Your task to perform on an android device: clear all cookies in the chrome app Image 0: 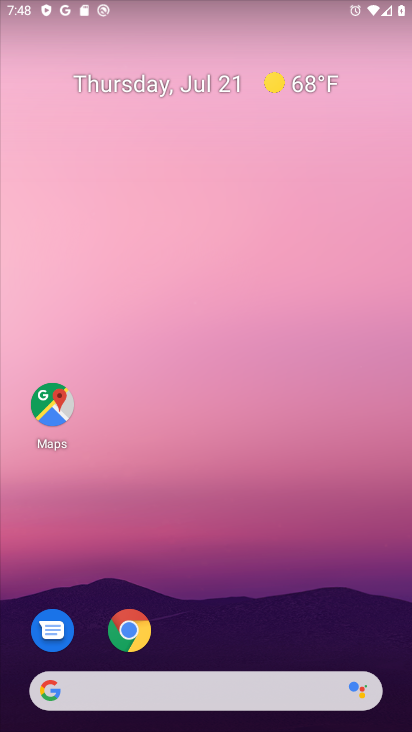
Step 0: drag from (280, 600) to (227, 0)
Your task to perform on an android device: clear all cookies in the chrome app Image 1: 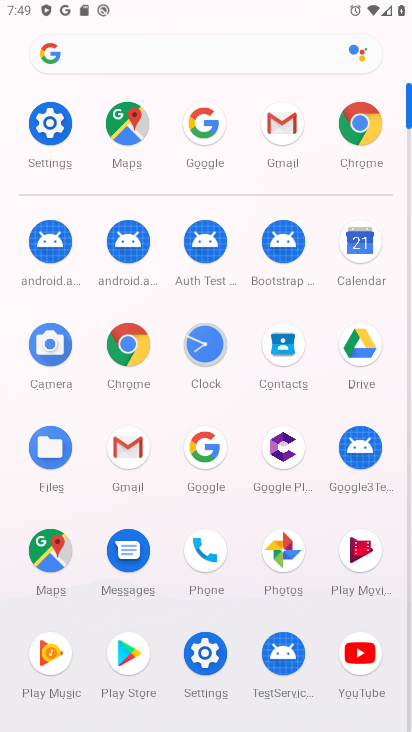
Step 1: click (362, 137)
Your task to perform on an android device: clear all cookies in the chrome app Image 2: 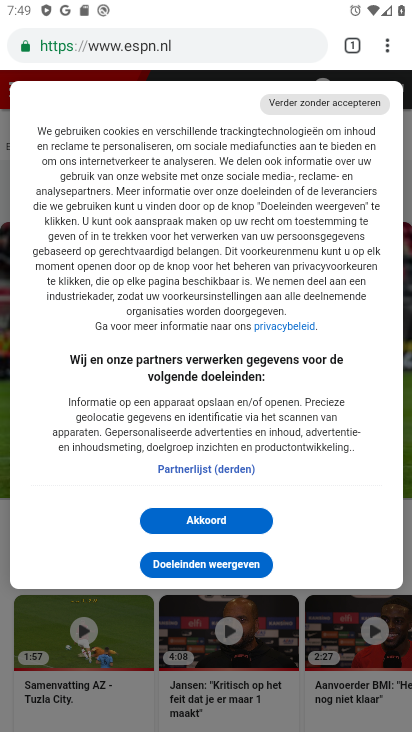
Step 2: drag from (386, 47) to (217, 257)
Your task to perform on an android device: clear all cookies in the chrome app Image 3: 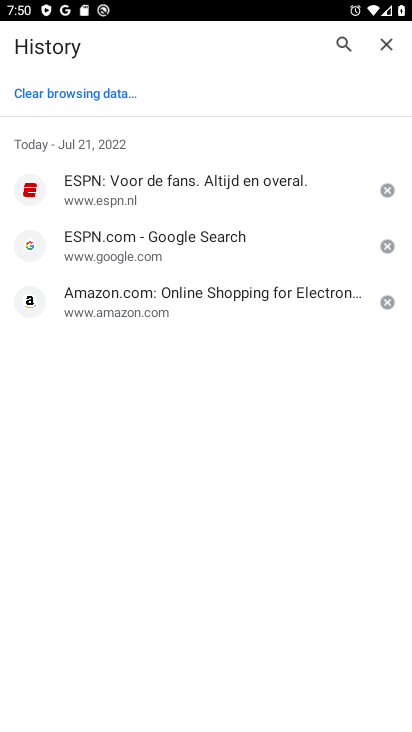
Step 3: click (65, 87)
Your task to perform on an android device: clear all cookies in the chrome app Image 4: 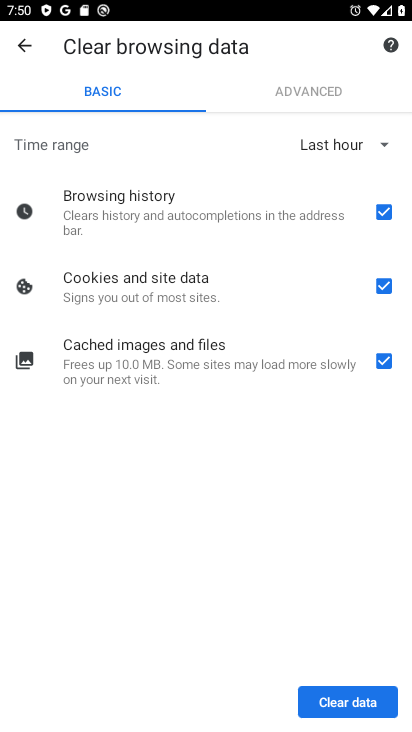
Step 4: click (377, 206)
Your task to perform on an android device: clear all cookies in the chrome app Image 5: 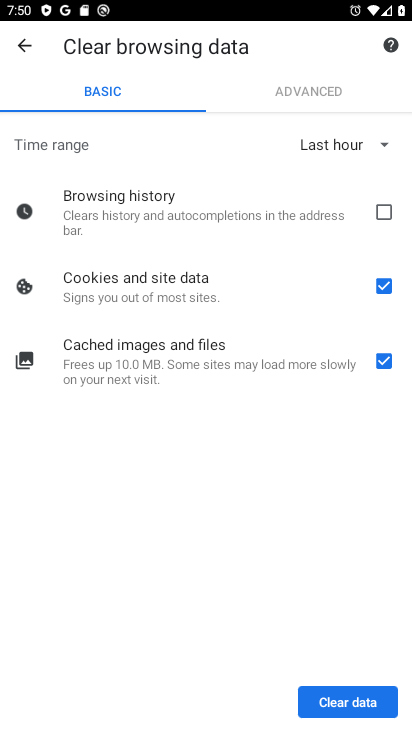
Step 5: click (388, 362)
Your task to perform on an android device: clear all cookies in the chrome app Image 6: 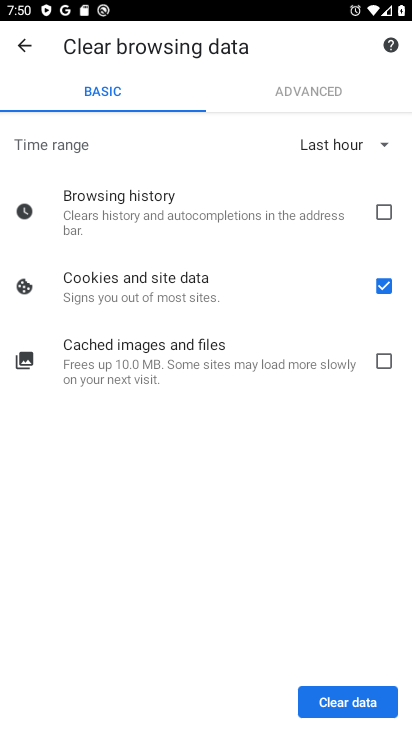
Step 6: click (341, 706)
Your task to perform on an android device: clear all cookies in the chrome app Image 7: 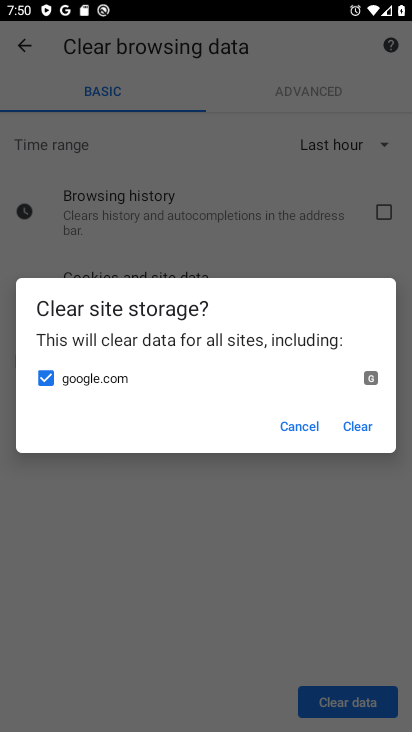
Step 7: click (355, 426)
Your task to perform on an android device: clear all cookies in the chrome app Image 8: 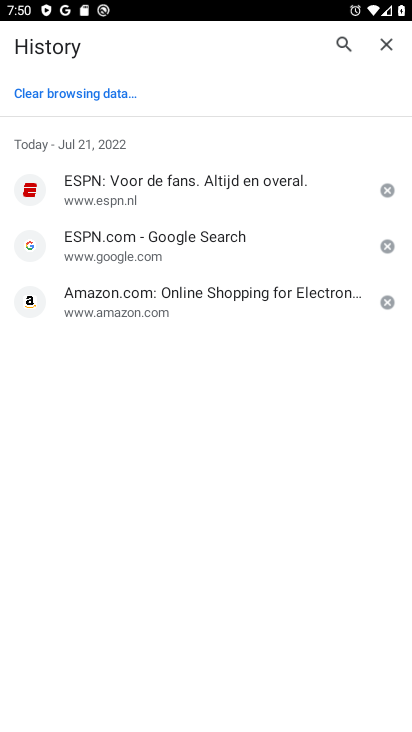
Step 8: task complete